Your task to perform on an android device: What's on my calendar today? Image 0: 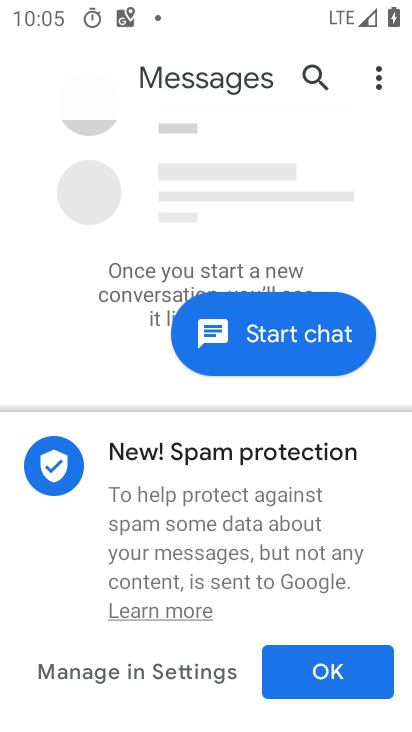
Step 0: press home button
Your task to perform on an android device: What's on my calendar today? Image 1: 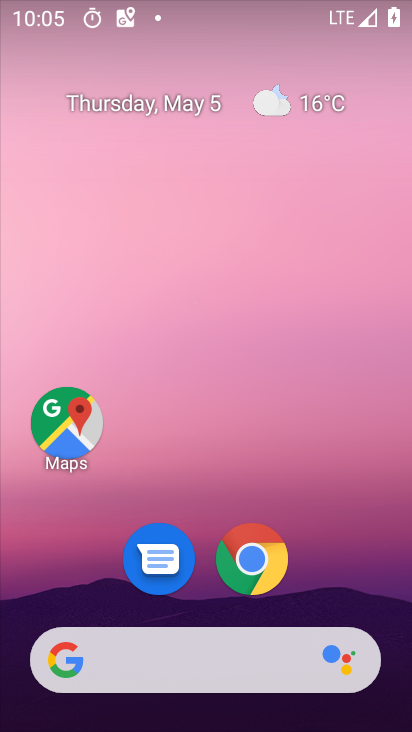
Step 1: drag from (297, 585) to (306, 28)
Your task to perform on an android device: What's on my calendar today? Image 2: 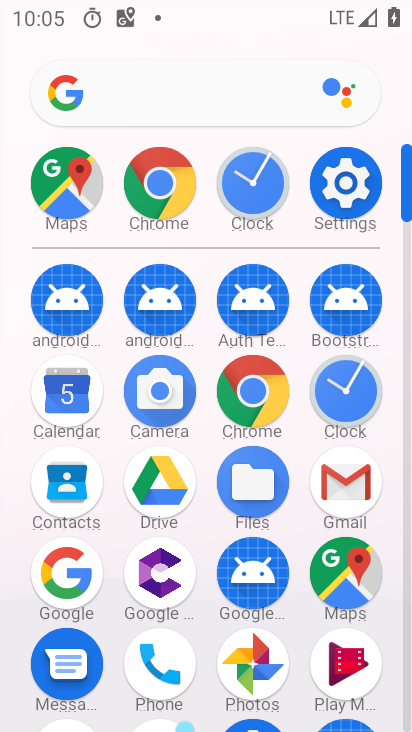
Step 2: click (74, 411)
Your task to perform on an android device: What's on my calendar today? Image 3: 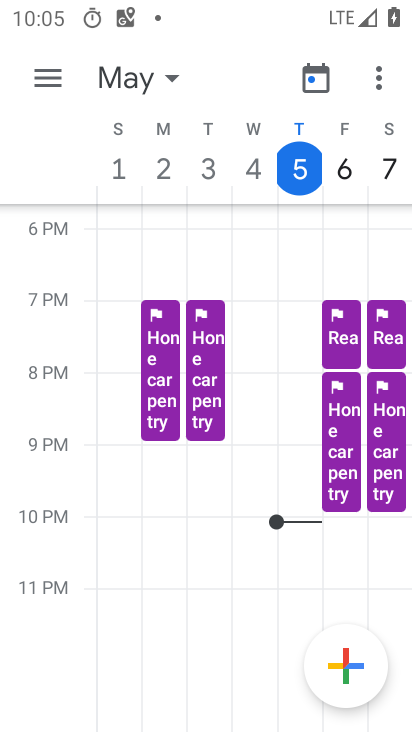
Step 3: click (53, 76)
Your task to perform on an android device: What's on my calendar today? Image 4: 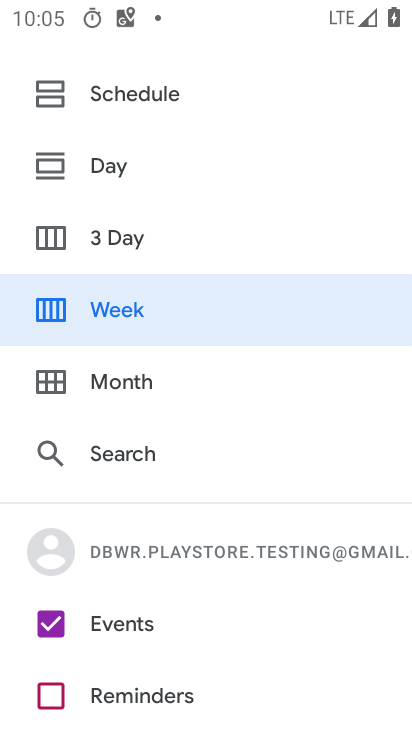
Step 4: click (115, 184)
Your task to perform on an android device: What's on my calendar today? Image 5: 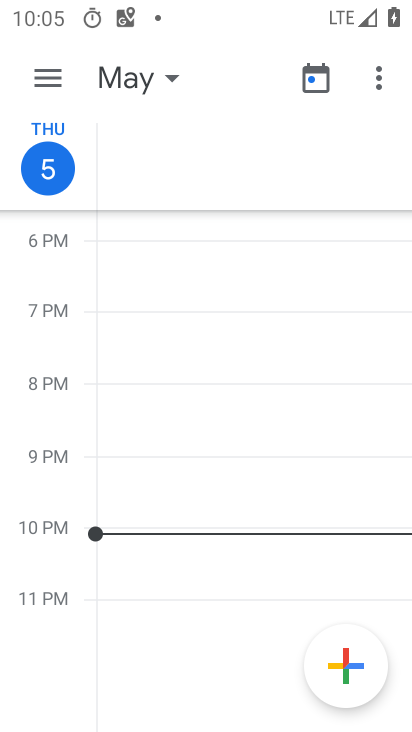
Step 5: task complete